Your task to perform on an android device: open the mobile data screen to see how much data has been used Image 0: 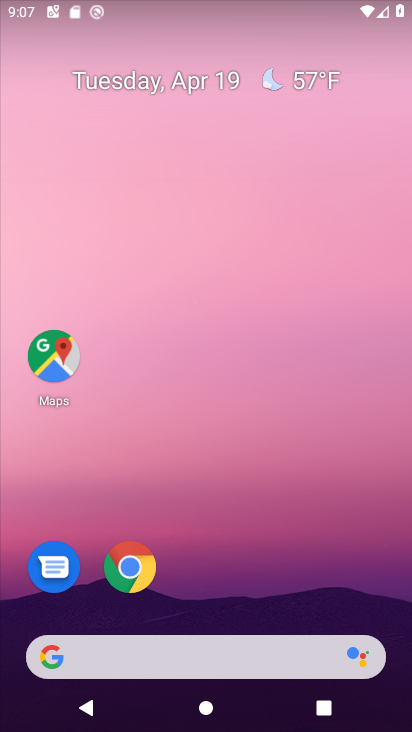
Step 0: drag from (273, 711) to (237, 49)
Your task to perform on an android device: open the mobile data screen to see how much data has been used Image 1: 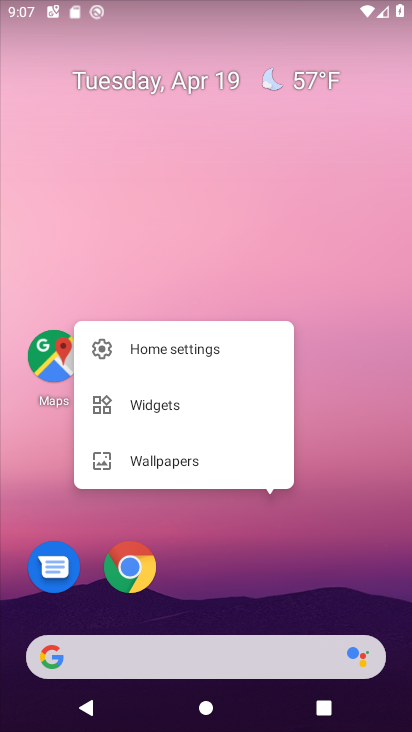
Step 1: drag from (253, 720) to (266, 66)
Your task to perform on an android device: open the mobile data screen to see how much data has been used Image 2: 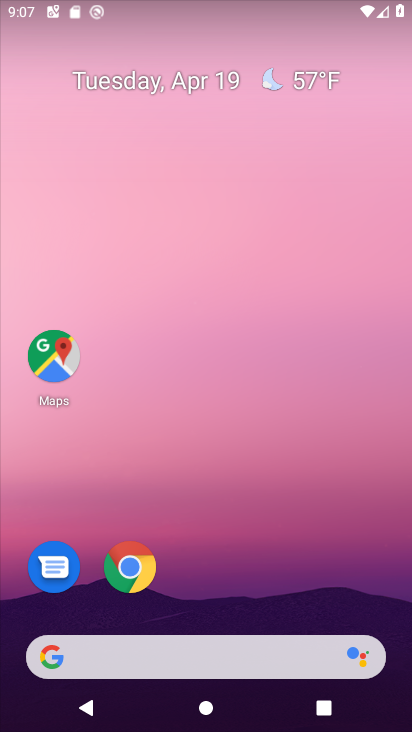
Step 2: drag from (256, 695) to (229, 2)
Your task to perform on an android device: open the mobile data screen to see how much data has been used Image 3: 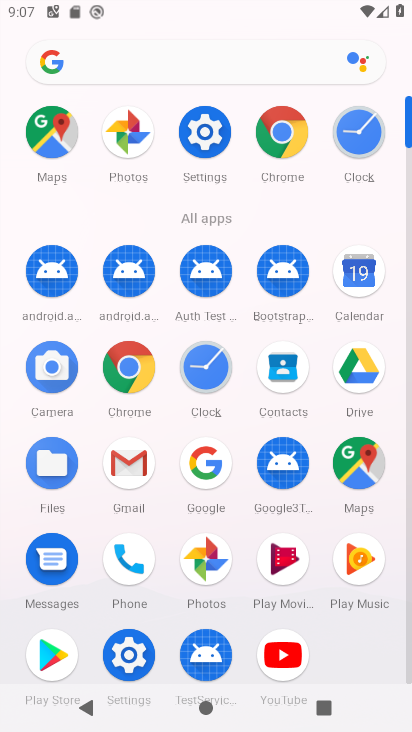
Step 3: click (211, 120)
Your task to perform on an android device: open the mobile data screen to see how much data has been used Image 4: 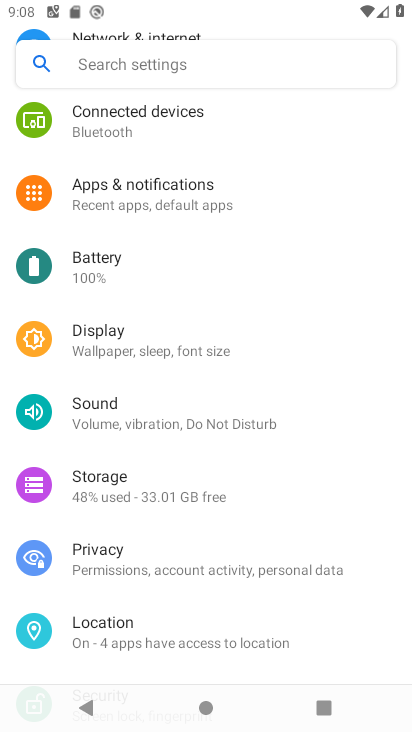
Step 4: drag from (315, 125) to (320, 546)
Your task to perform on an android device: open the mobile data screen to see how much data has been used Image 5: 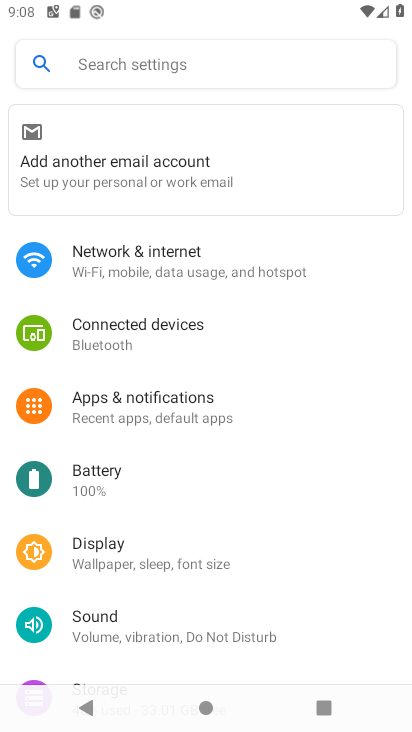
Step 5: click (248, 267)
Your task to perform on an android device: open the mobile data screen to see how much data has been used Image 6: 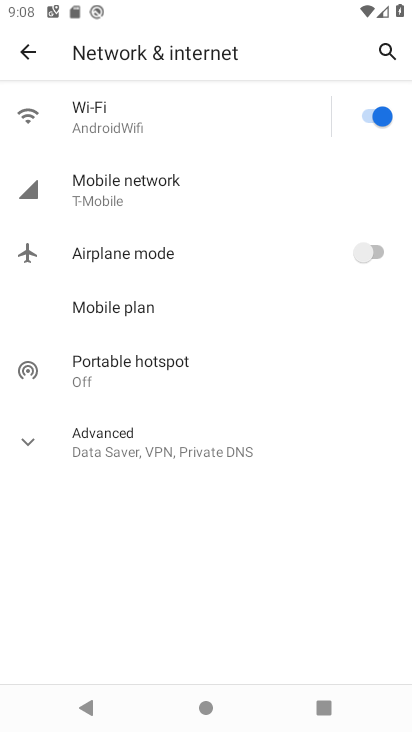
Step 6: click (183, 186)
Your task to perform on an android device: open the mobile data screen to see how much data has been used Image 7: 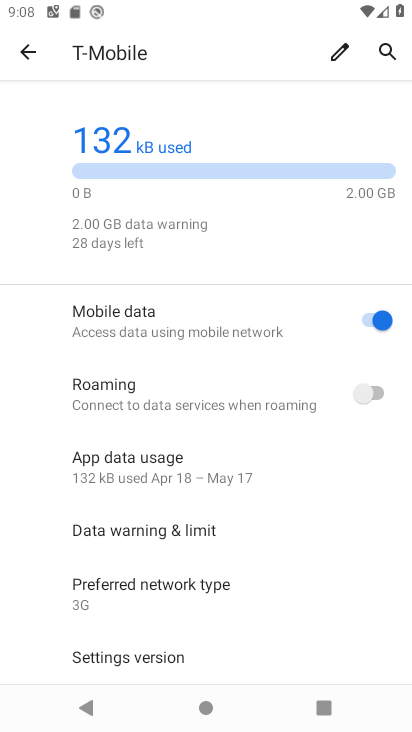
Step 7: click (204, 471)
Your task to perform on an android device: open the mobile data screen to see how much data has been used Image 8: 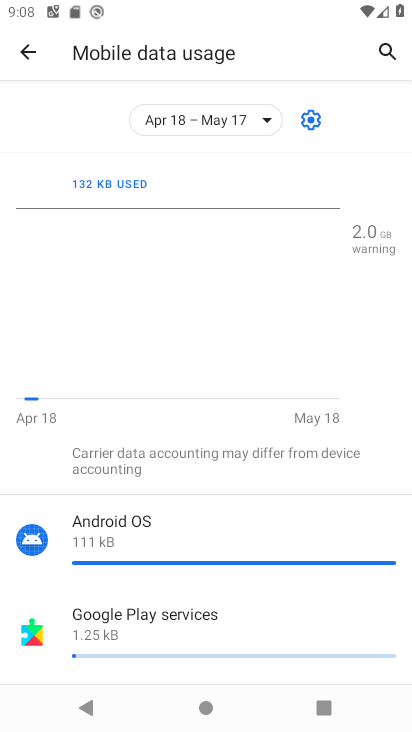
Step 8: task complete